Your task to perform on an android device: check android version Image 0: 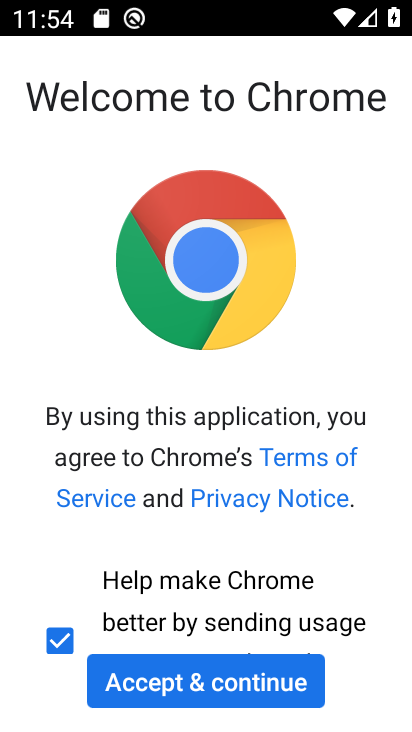
Step 0: press home button
Your task to perform on an android device: check android version Image 1: 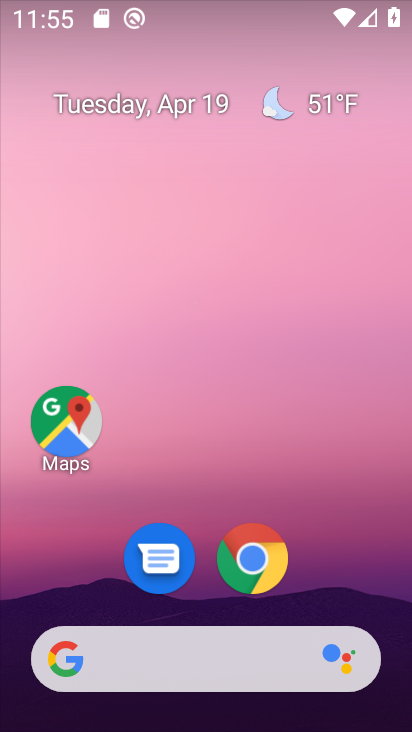
Step 1: drag from (360, 582) to (300, 128)
Your task to perform on an android device: check android version Image 2: 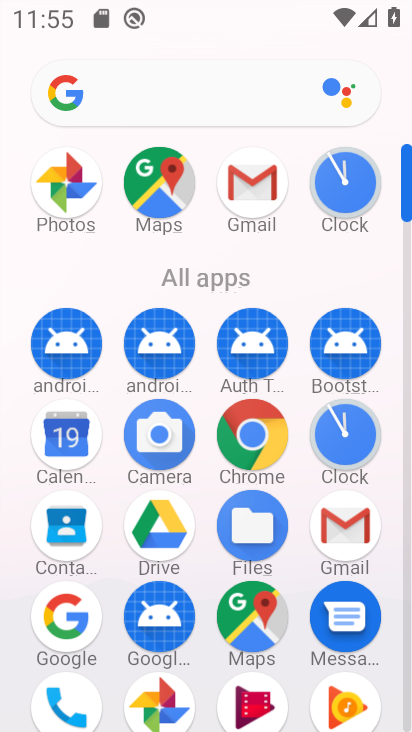
Step 2: click (405, 680)
Your task to perform on an android device: check android version Image 3: 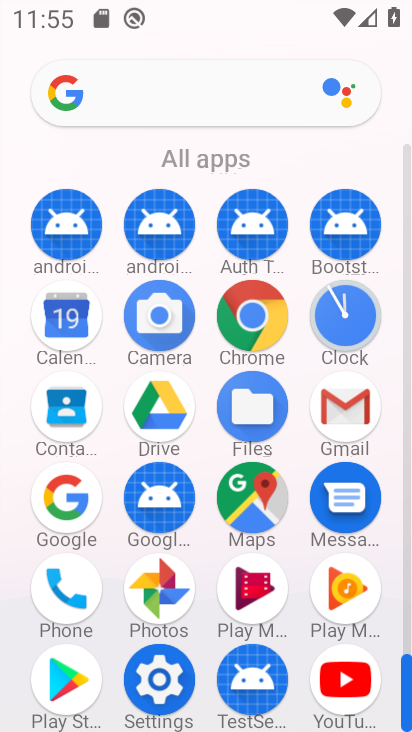
Step 3: click (160, 677)
Your task to perform on an android device: check android version Image 4: 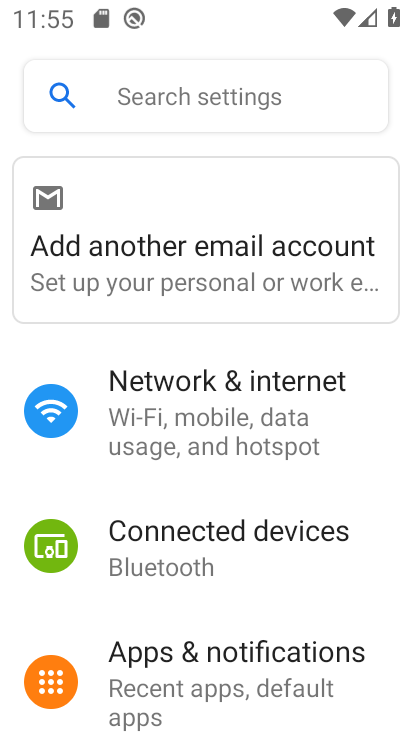
Step 4: drag from (290, 654) to (260, 318)
Your task to perform on an android device: check android version Image 5: 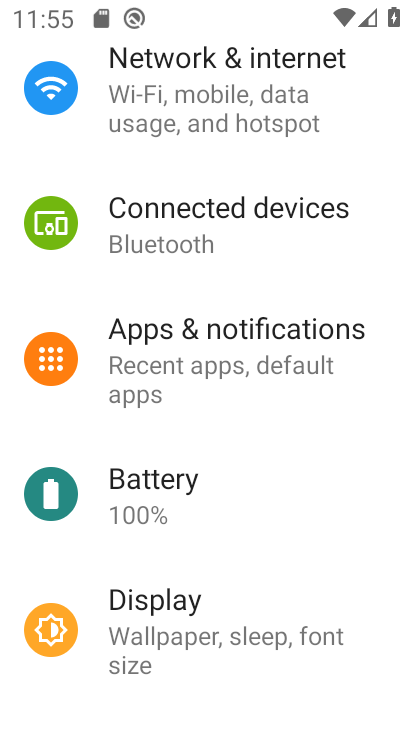
Step 5: drag from (235, 528) to (202, 201)
Your task to perform on an android device: check android version Image 6: 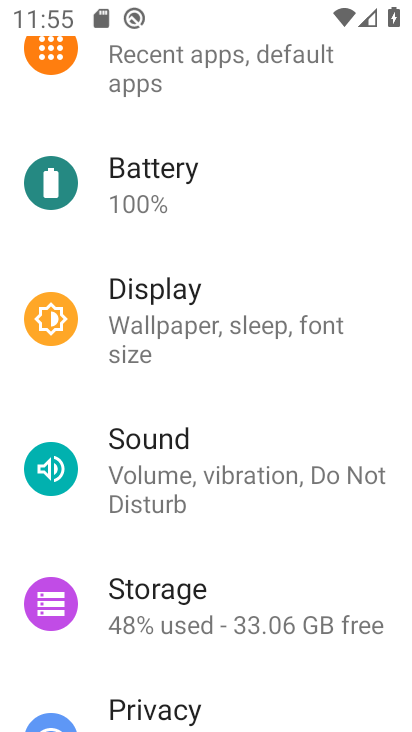
Step 6: drag from (270, 609) to (285, 297)
Your task to perform on an android device: check android version Image 7: 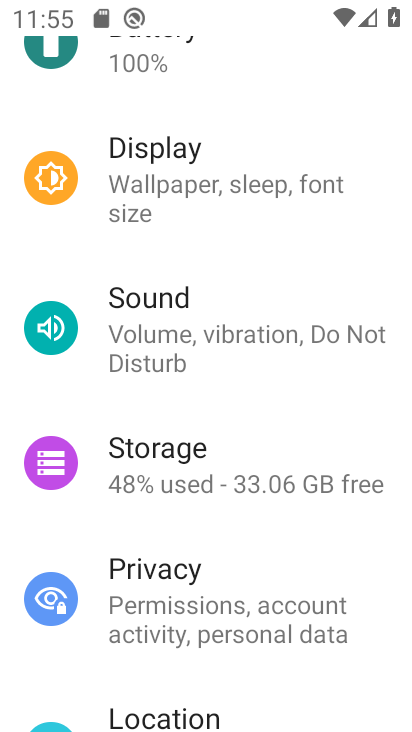
Step 7: drag from (278, 594) to (271, 258)
Your task to perform on an android device: check android version Image 8: 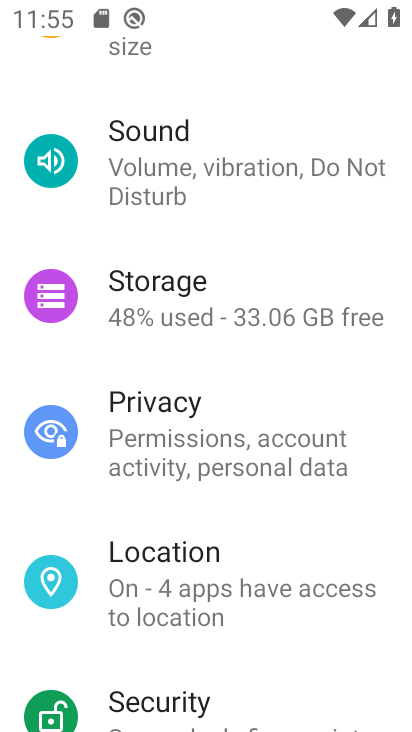
Step 8: drag from (245, 599) to (255, 258)
Your task to perform on an android device: check android version Image 9: 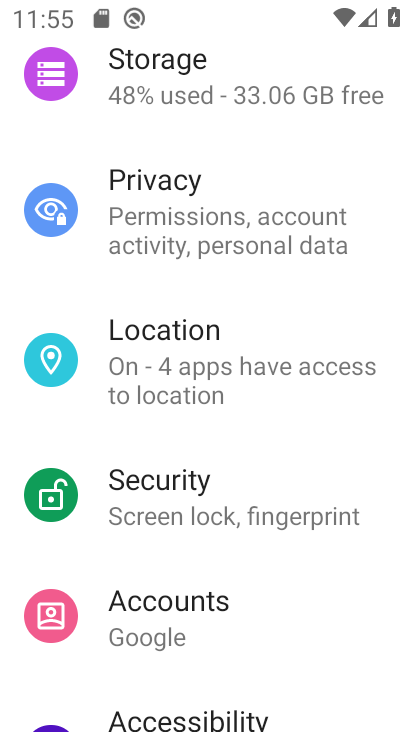
Step 9: drag from (253, 570) to (248, 227)
Your task to perform on an android device: check android version Image 10: 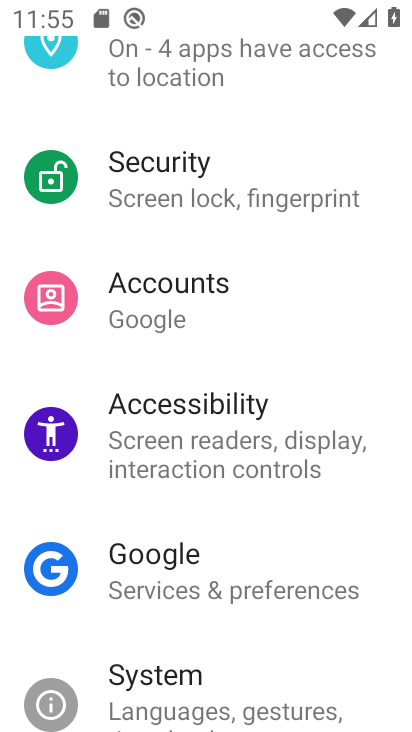
Step 10: drag from (250, 601) to (257, 210)
Your task to perform on an android device: check android version Image 11: 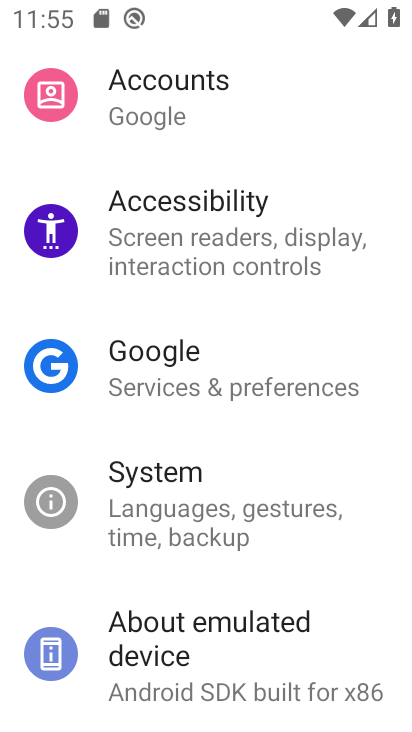
Step 11: click (176, 641)
Your task to perform on an android device: check android version Image 12: 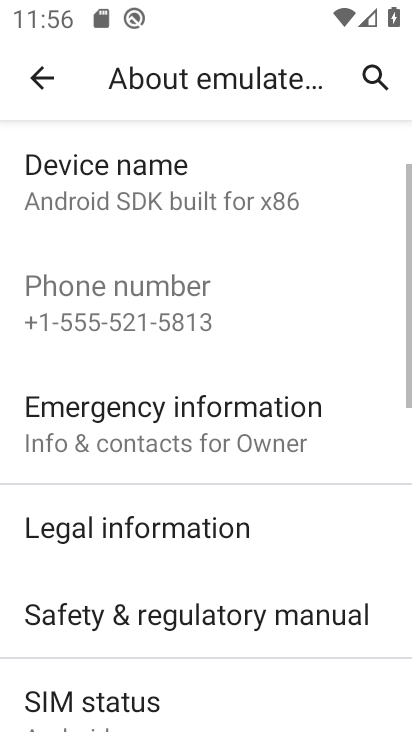
Step 12: drag from (312, 569) to (289, 197)
Your task to perform on an android device: check android version Image 13: 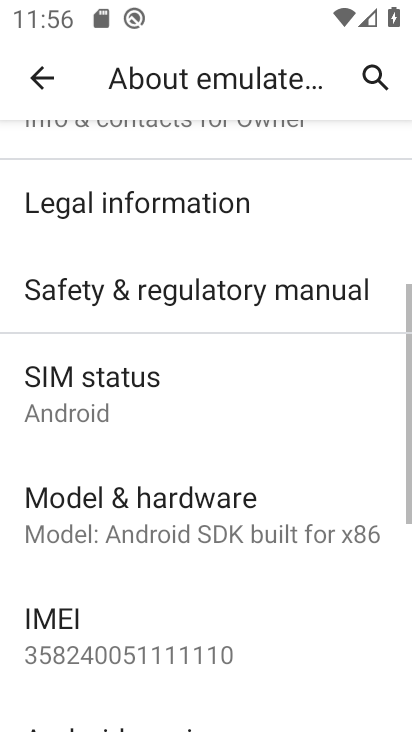
Step 13: drag from (204, 603) to (219, 133)
Your task to perform on an android device: check android version Image 14: 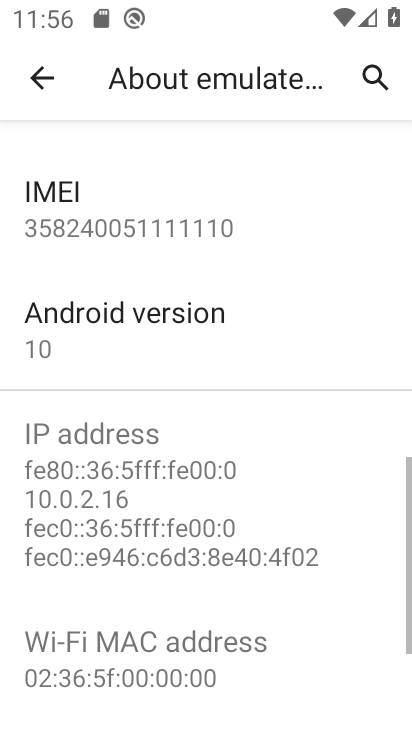
Step 14: click (85, 328)
Your task to perform on an android device: check android version Image 15: 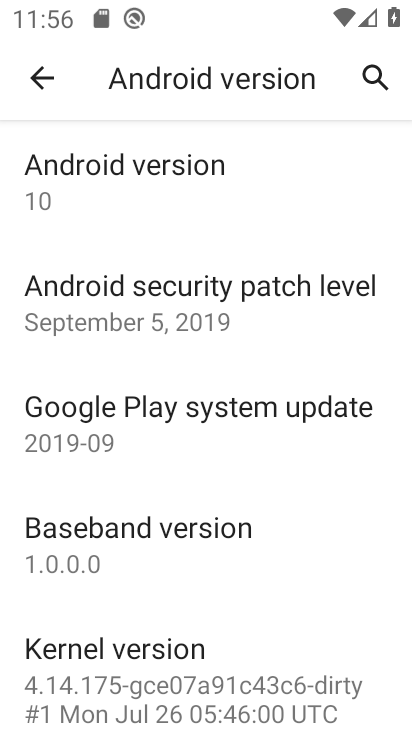
Step 15: task complete